Your task to perform on an android device: change text size in settings app Image 0: 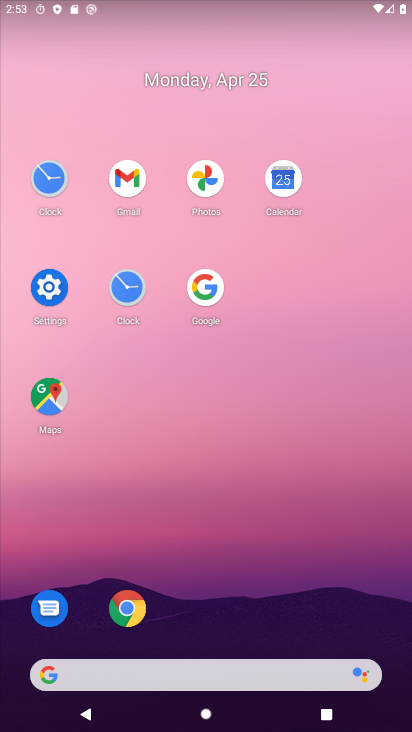
Step 0: click (51, 285)
Your task to perform on an android device: change text size in settings app Image 1: 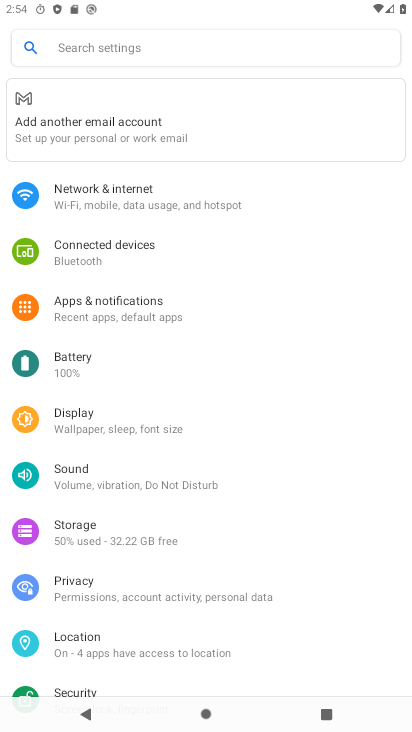
Step 1: click (105, 432)
Your task to perform on an android device: change text size in settings app Image 2: 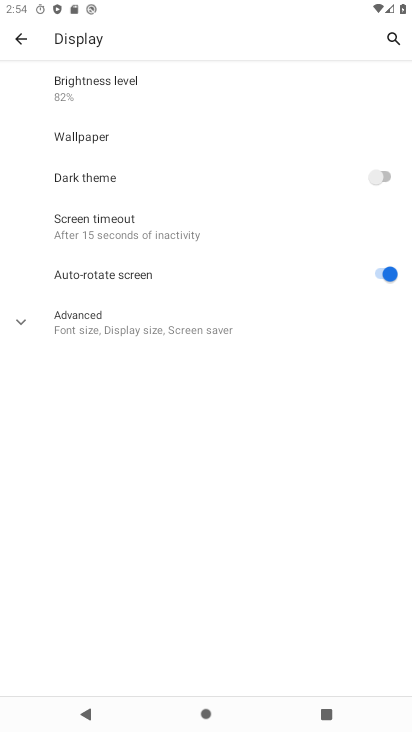
Step 2: click (153, 315)
Your task to perform on an android device: change text size in settings app Image 3: 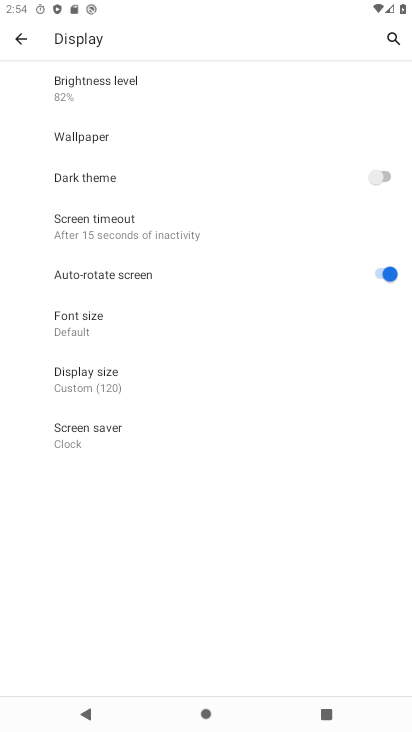
Step 3: click (153, 315)
Your task to perform on an android device: change text size in settings app Image 4: 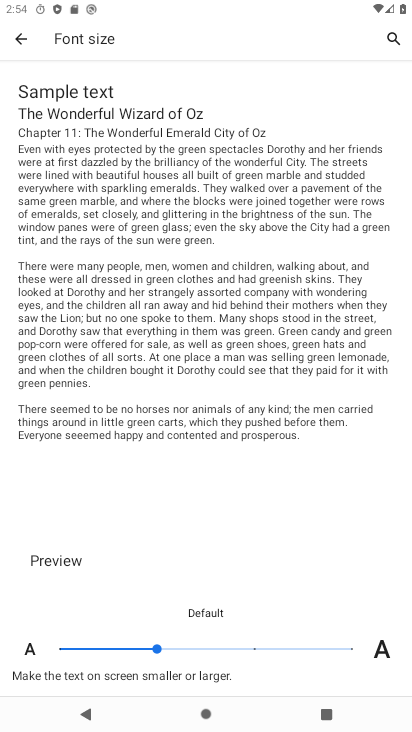
Step 4: click (250, 654)
Your task to perform on an android device: change text size in settings app Image 5: 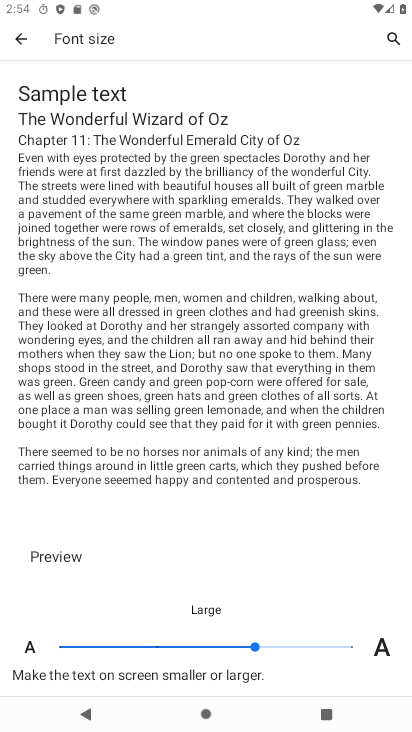
Step 5: task complete